Your task to perform on an android device: toggle javascript in the chrome app Image 0: 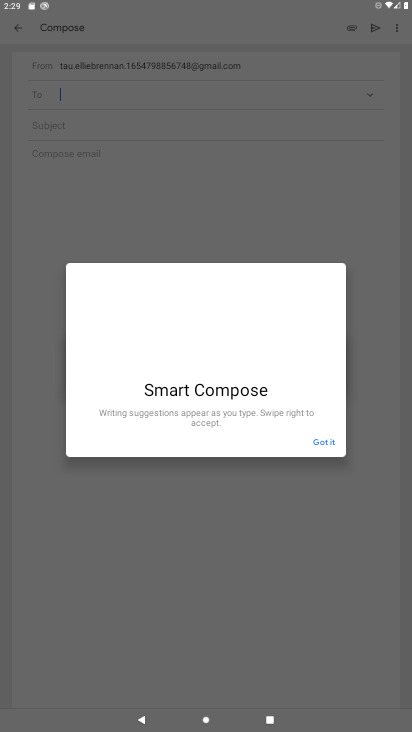
Step 0: press home button
Your task to perform on an android device: toggle javascript in the chrome app Image 1: 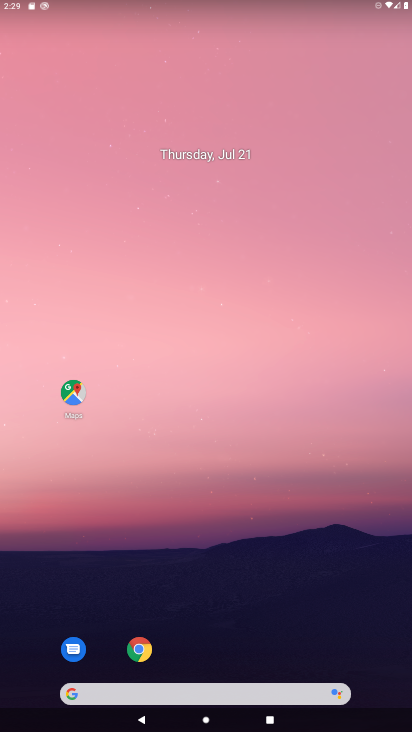
Step 1: drag from (296, 573) to (126, 5)
Your task to perform on an android device: toggle javascript in the chrome app Image 2: 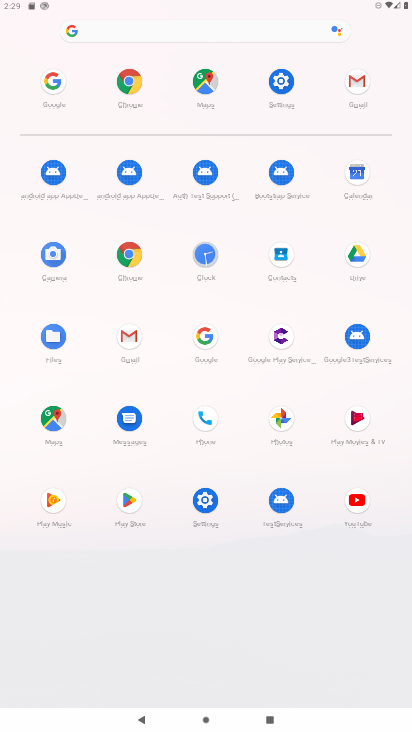
Step 2: click (124, 83)
Your task to perform on an android device: toggle javascript in the chrome app Image 3: 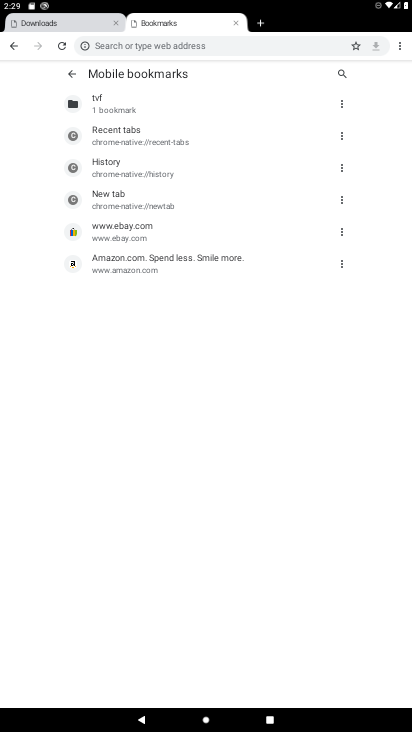
Step 3: drag from (395, 47) to (329, 206)
Your task to perform on an android device: toggle javascript in the chrome app Image 4: 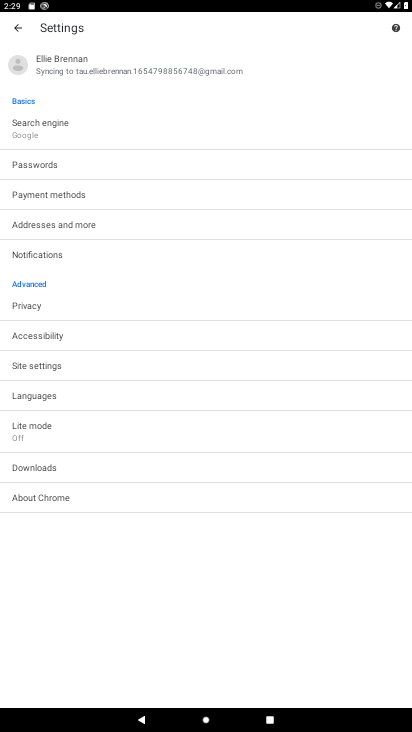
Step 4: click (24, 364)
Your task to perform on an android device: toggle javascript in the chrome app Image 5: 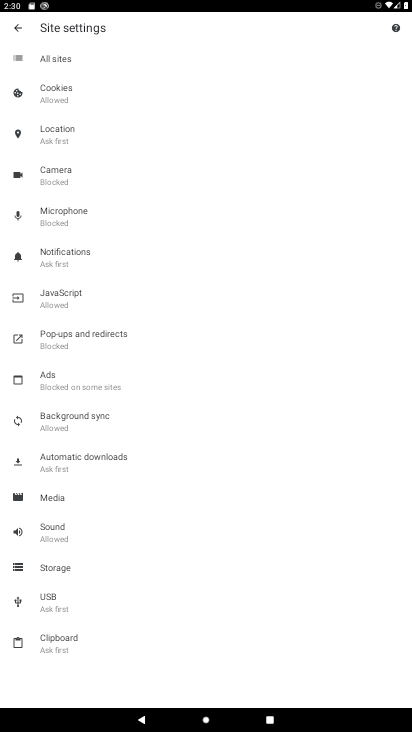
Step 5: click (52, 297)
Your task to perform on an android device: toggle javascript in the chrome app Image 6: 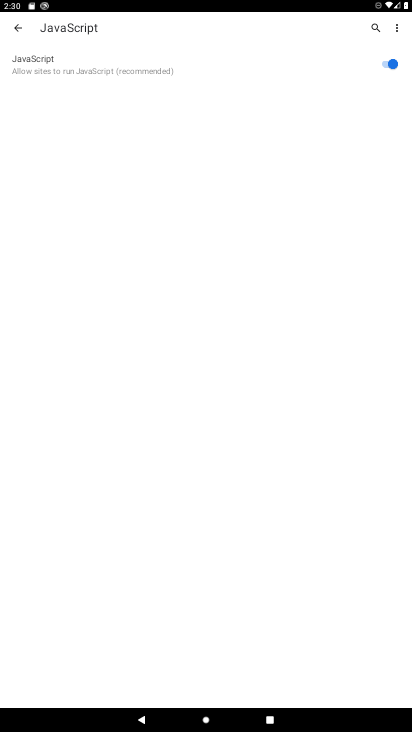
Step 6: click (392, 77)
Your task to perform on an android device: toggle javascript in the chrome app Image 7: 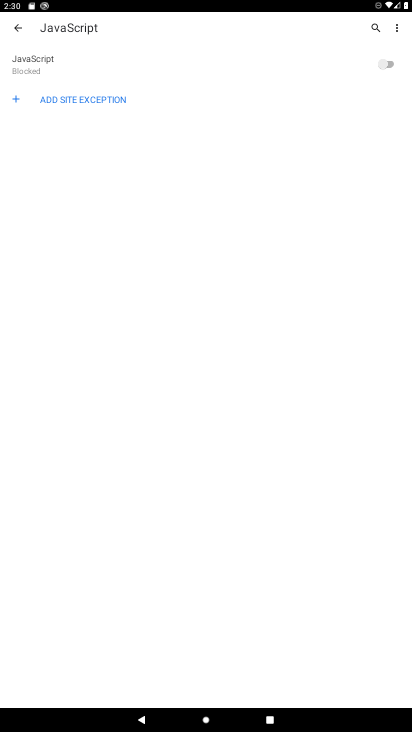
Step 7: task complete